Your task to perform on an android device: Open sound settings Image 0: 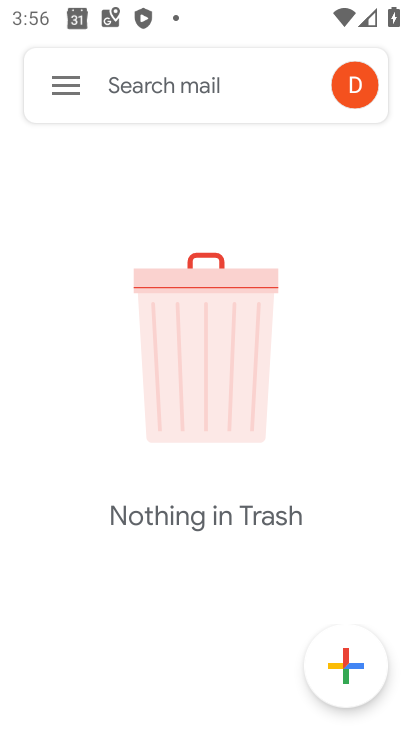
Step 0: press back button
Your task to perform on an android device: Open sound settings Image 1: 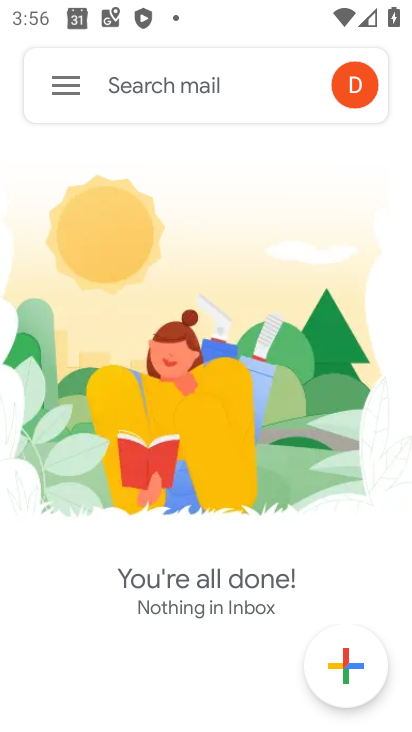
Step 1: press back button
Your task to perform on an android device: Open sound settings Image 2: 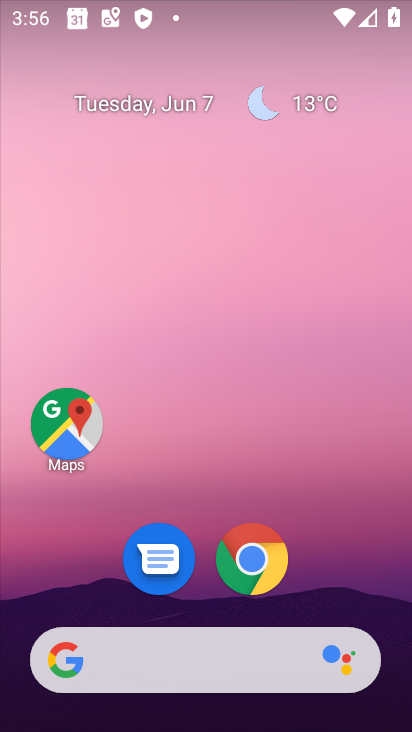
Step 2: drag from (328, 575) to (259, 72)
Your task to perform on an android device: Open sound settings Image 3: 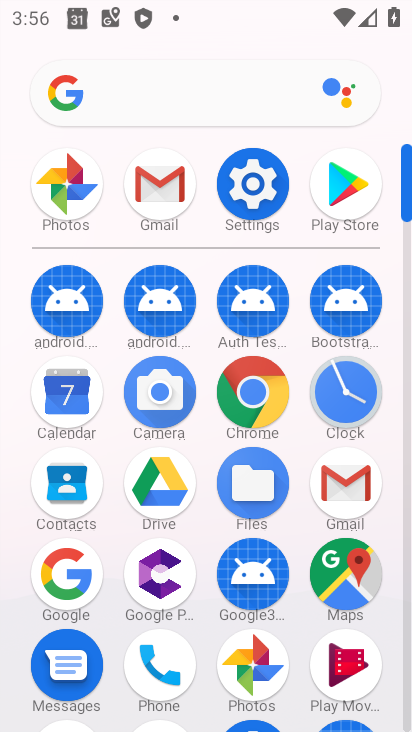
Step 3: click (253, 180)
Your task to perform on an android device: Open sound settings Image 4: 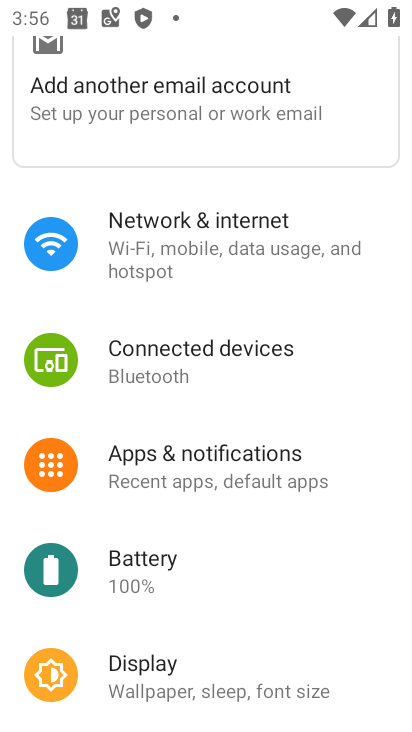
Step 4: drag from (213, 595) to (253, 350)
Your task to perform on an android device: Open sound settings Image 5: 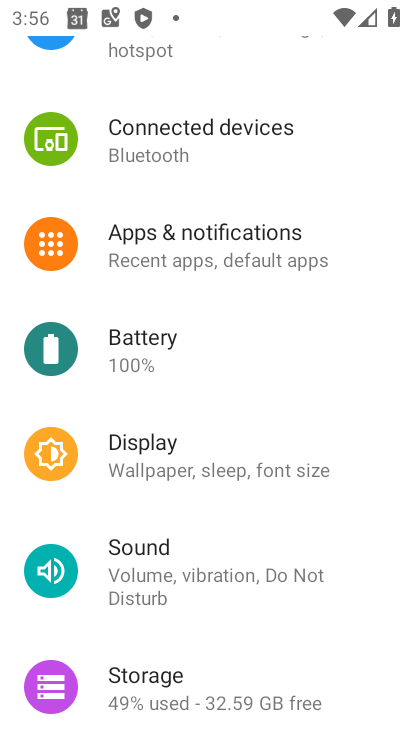
Step 5: click (160, 559)
Your task to perform on an android device: Open sound settings Image 6: 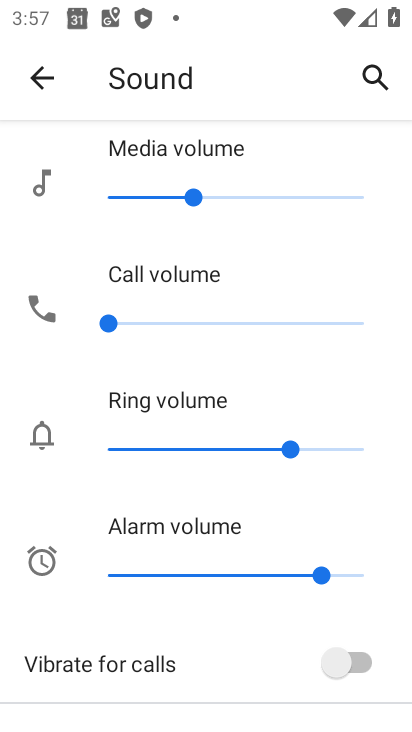
Step 6: task complete